Your task to perform on an android device: Clear the cart on target.com. Search for beats solo 3 on target.com, select the first entry, and add it to the cart. Image 0: 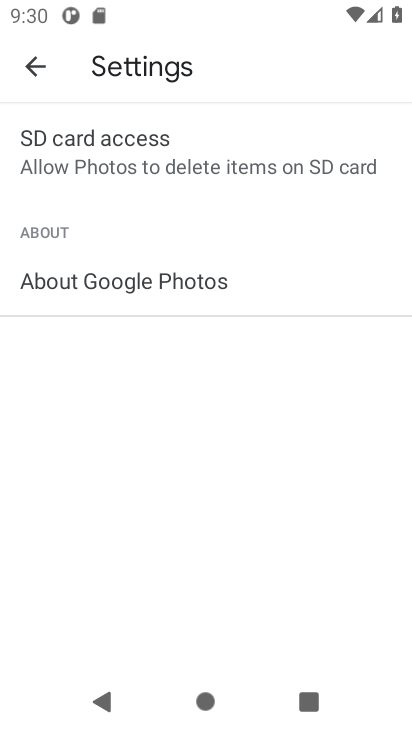
Step 0: press home button
Your task to perform on an android device: Clear the cart on target.com. Search for beats solo 3 on target.com, select the first entry, and add it to the cart. Image 1: 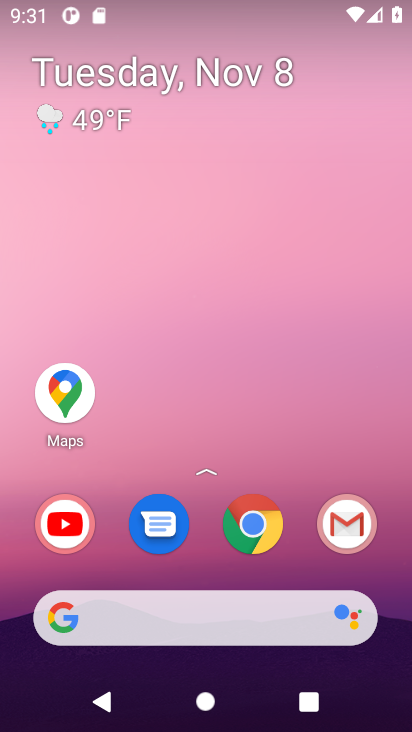
Step 1: click (266, 528)
Your task to perform on an android device: Clear the cart on target.com. Search for beats solo 3 on target.com, select the first entry, and add it to the cart. Image 2: 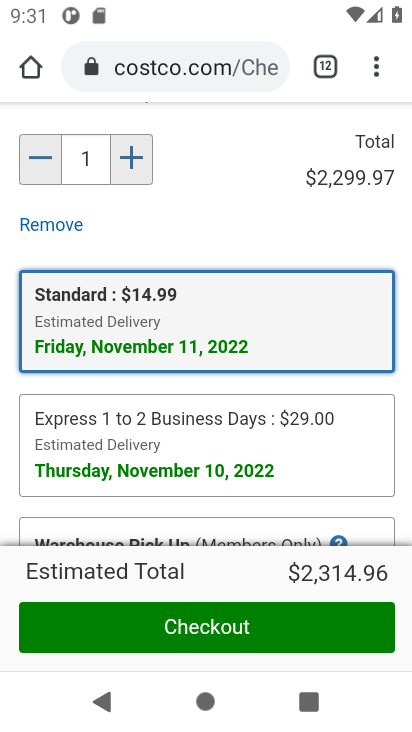
Step 2: click (175, 72)
Your task to perform on an android device: Clear the cart on target.com. Search for beats solo 3 on target.com, select the first entry, and add it to the cart. Image 3: 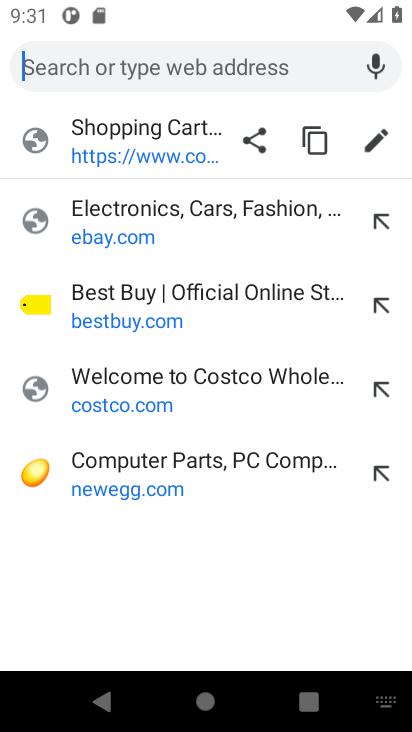
Step 3: type "target.com"
Your task to perform on an android device: Clear the cart on target.com. Search for beats solo 3 on target.com, select the first entry, and add it to the cart. Image 4: 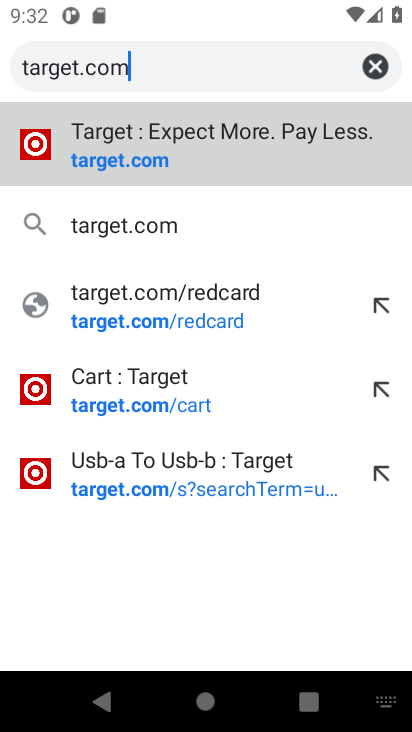
Step 4: click (99, 161)
Your task to perform on an android device: Clear the cart on target.com. Search for beats solo 3 on target.com, select the first entry, and add it to the cart. Image 5: 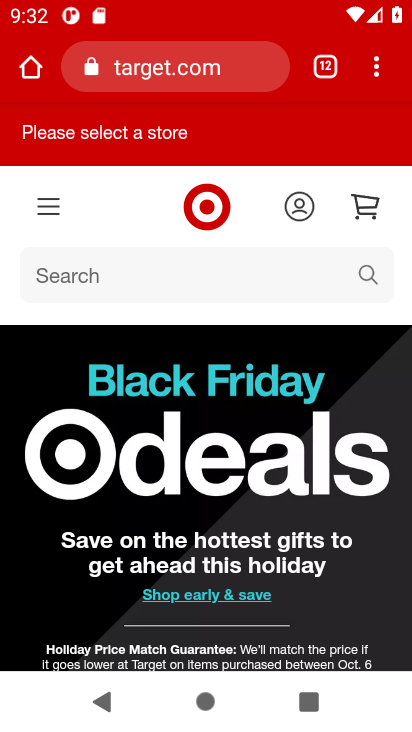
Step 5: click (365, 201)
Your task to perform on an android device: Clear the cart on target.com. Search for beats solo 3 on target.com, select the first entry, and add it to the cart. Image 6: 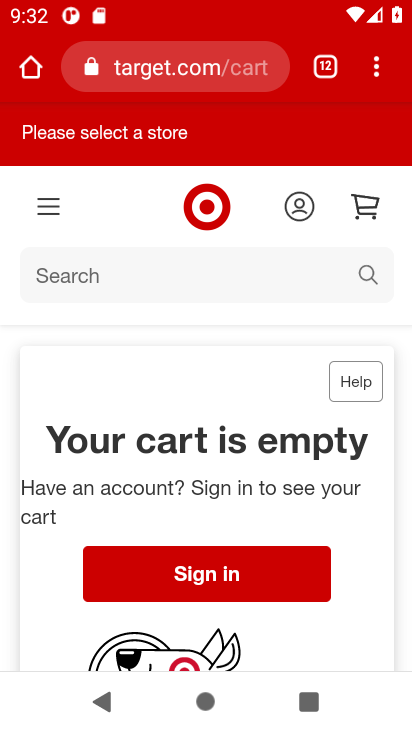
Step 6: click (373, 274)
Your task to perform on an android device: Clear the cart on target.com. Search for beats solo 3 on target.com, select the first entry, and add it to the cart. Image 7: 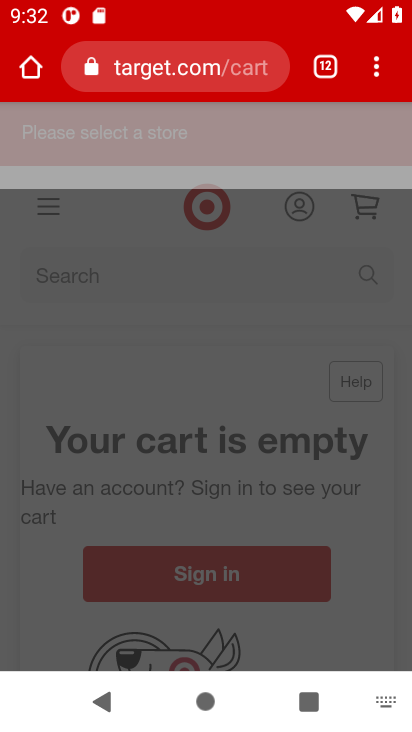
Step 7: click (133, 274)
Your task to perform on an android device: Clear the cart on target.com. Search for beats solo 3 on target.com, select the first entry, and add it to the cart. Image 8: 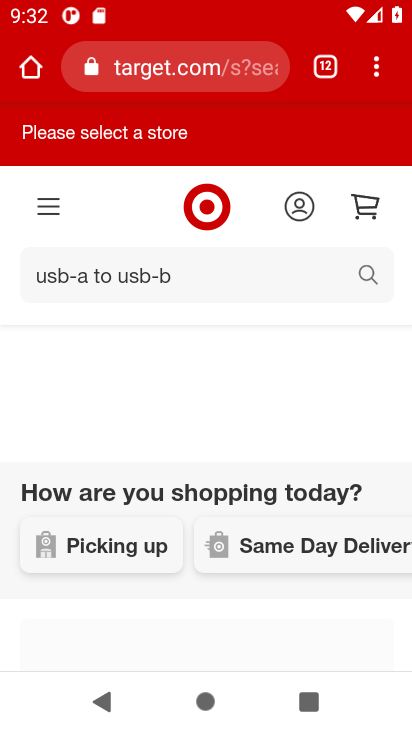
Step 8: click (365, 269)
Your task to perform on an android device: Clear the cart on target.com. Search for beats solo 3 on target.com, select the first entry, and add it to the cart. Image 9: 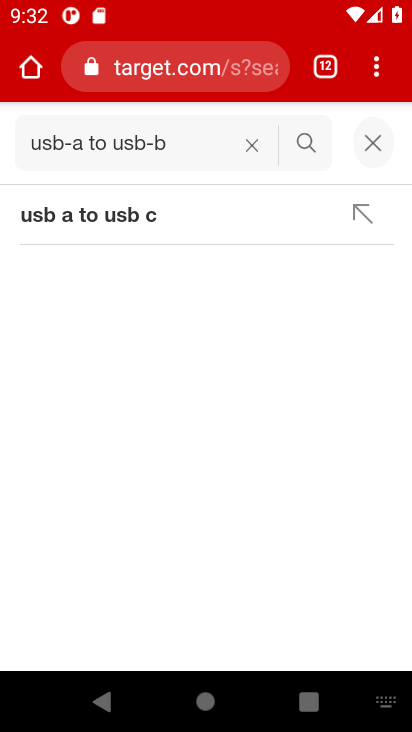
Step 9: click (247, 149)
Your task to perform on an android device: Clear the cart on target.com. Search for beats solo 3 on target.com, select the first entry, and add it to the cart. Image 10: 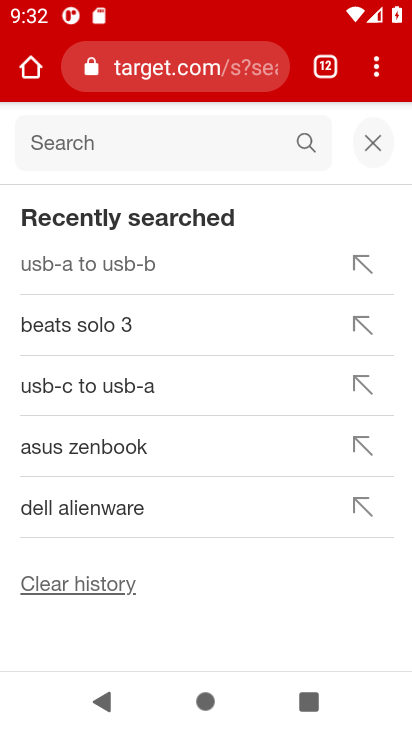
Step 10: type "beats solo 3"
Your task to perform on an android device: Clear the cart on target.com. Search for beats solo 3 on target.com, select the first entry, and add it to the cart. Image 11: 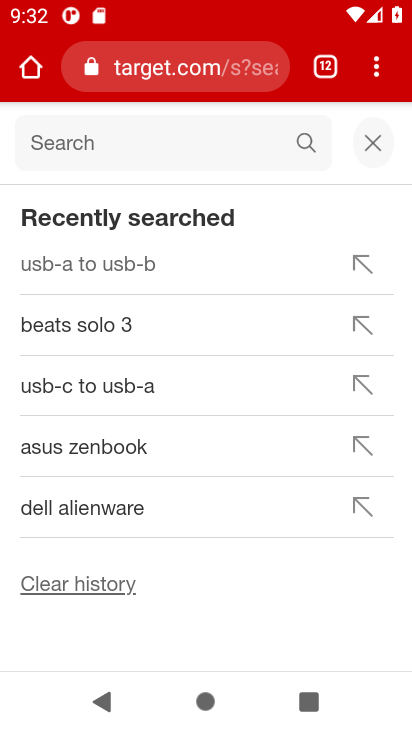
Step 11: click (116, 321)
Your task to perform on an android device: Clear the cart on target.com. Search for beats solo 3 on target.com, select the first entry, and add it to the cart. Image 12: 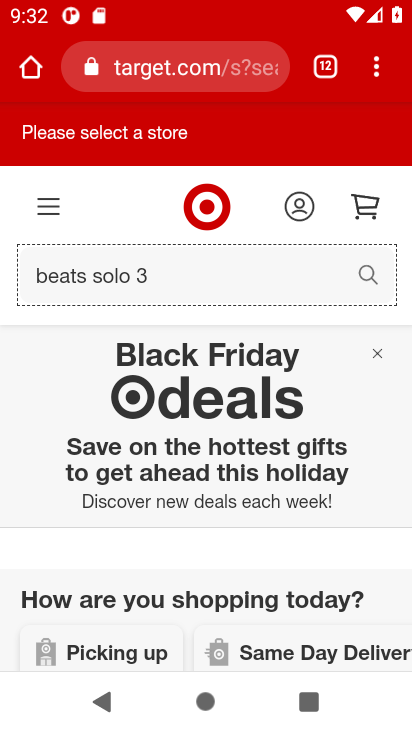
Step 12: task complete